Your task to perform on an android device: toggle javascript in the chrome app Image 0: 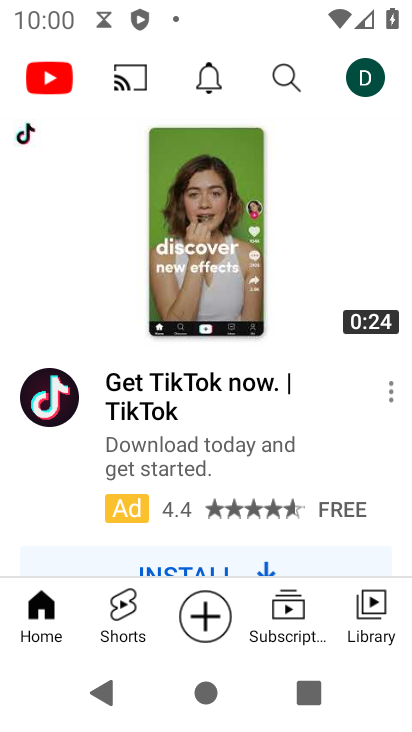
Step 0: press home button
Your task to perform on an android device: toggle javascript in the chrome app Image 1: 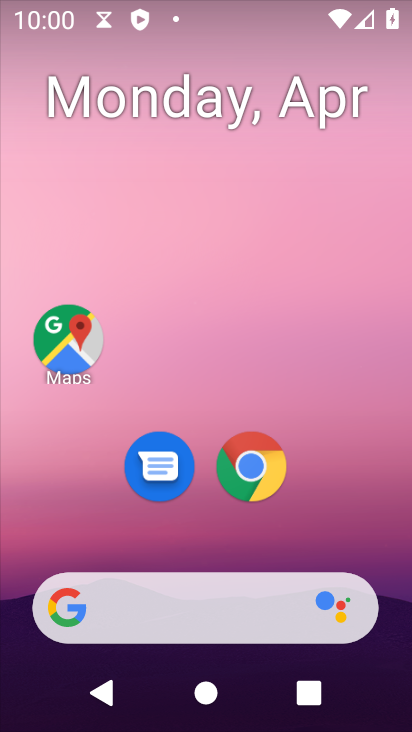
Step 1: click (255, 467)
Your task to perform on an android device: toggle javascript in the chrome app Image 2: 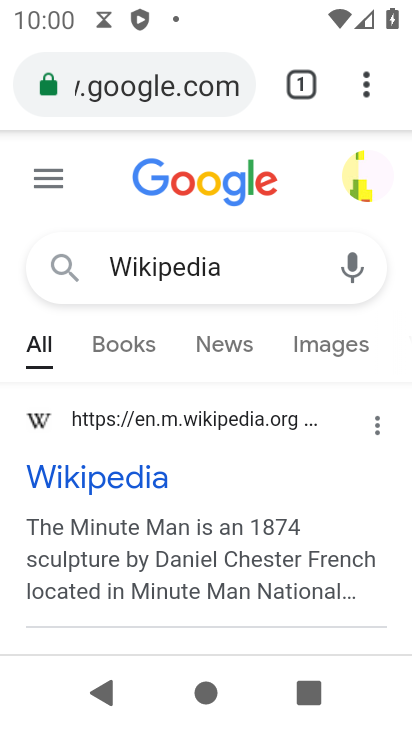
Step 2: click (371, 81)
Your task to perform on an android device: toggle javascript in the chrome app Image 3: 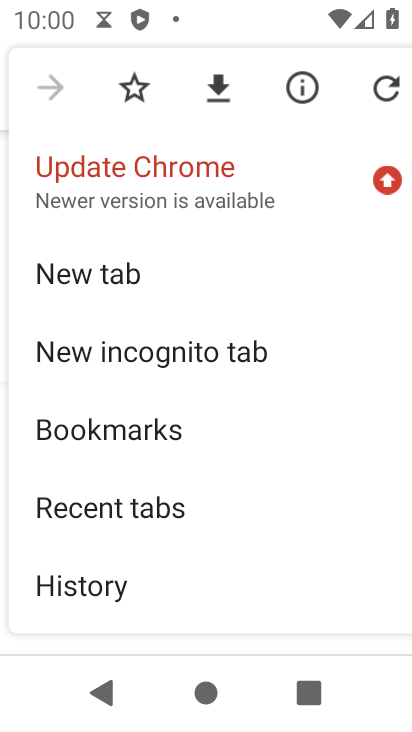
Step 3: drag from (166, 571) to (191, 418)
Your task to perform on an android device: toggle javascript in the chrome app Image 4: 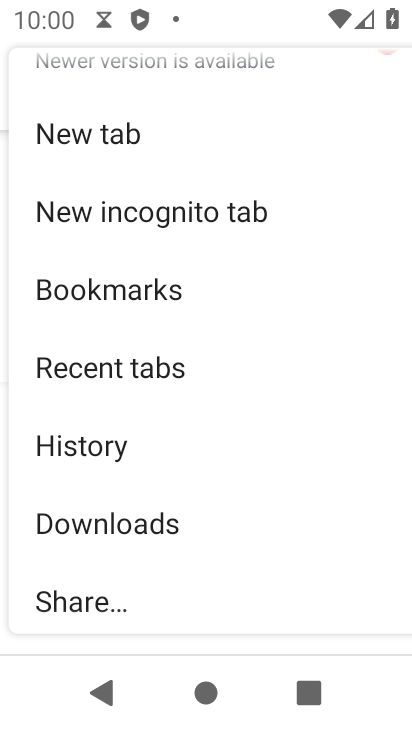
Step 4: drag from (204, 552) to (211, 420)
Your task to perform on an android device: toggle javascript in the chrome app Image 5: 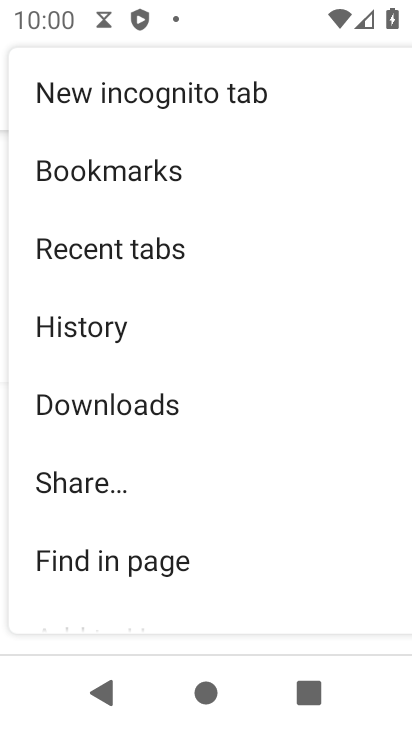
Step 5: drag from (200, 533) to (233, 421)
Your task to perform on an android device: toggle javascript in the chrome app Image 6: 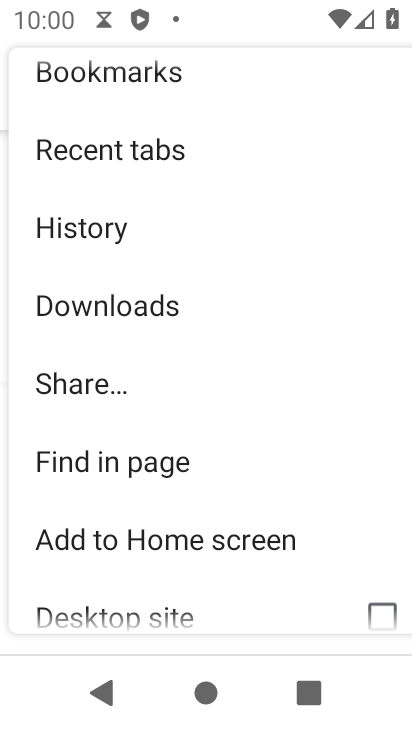
Step 6: drag from (207, 507) to (247, 408)
Your task to perform on an android device: toggle javascript in the chrome app Image 7: 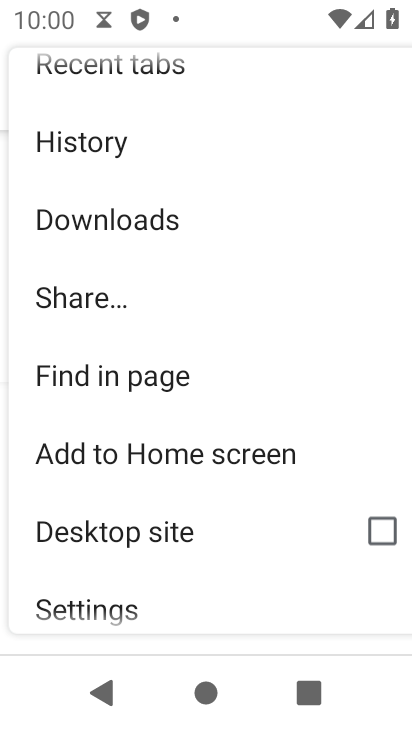
Step 7: drag from (169, 588) to (220, 429)
Your task to perform on an android device: toggle javascript in the chrome app Image 8: 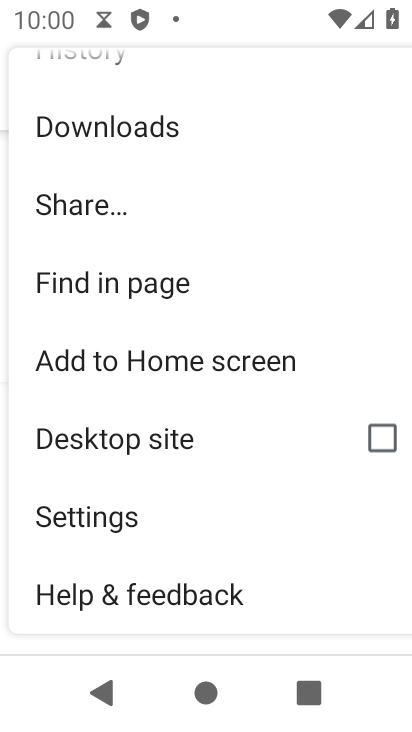
Step 8: click (77, 519)
Your task to perform on an android device: toggle javascript in the chrome app Image 9: 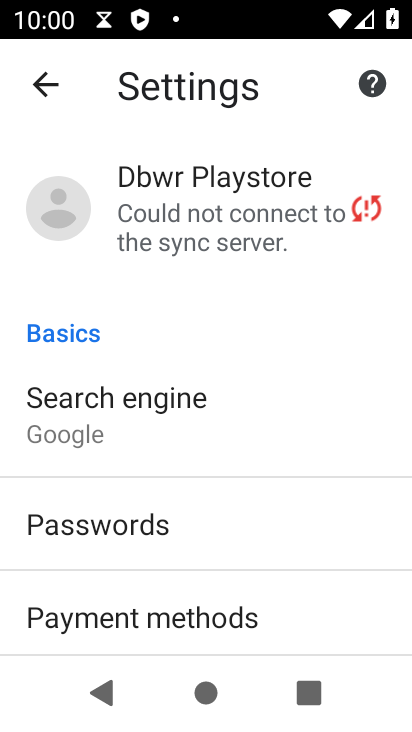
Step 9: drag from (200, 540) to (230, 390)
Your task to perform on an android device: toggle javascript in the chrome app Image 10: 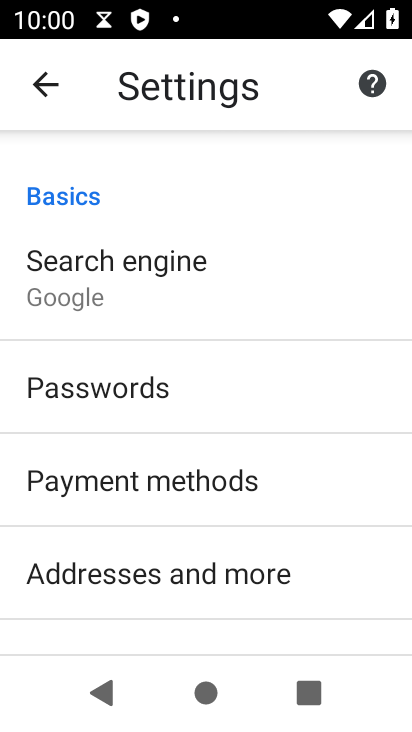
Step 10: drag from (191, 509) to (251, 383)
Your task to perform on an android device: toggle javascript in the chrome app Image 11: 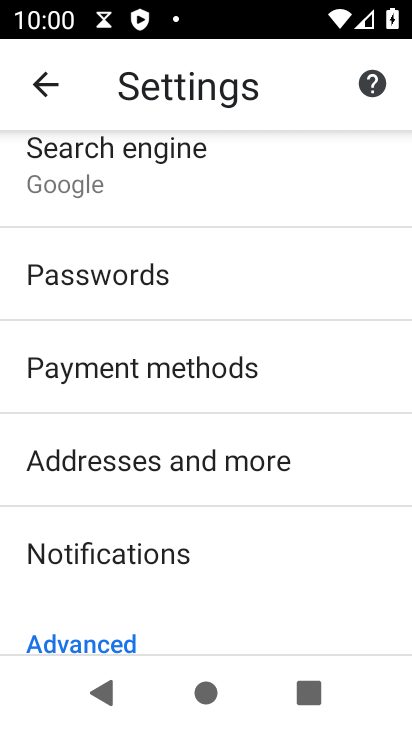
Step 11: drag from (168, 500) to (225, 362)
Your task to perform on an android device: toggle javascript in the chrome app Image 12: 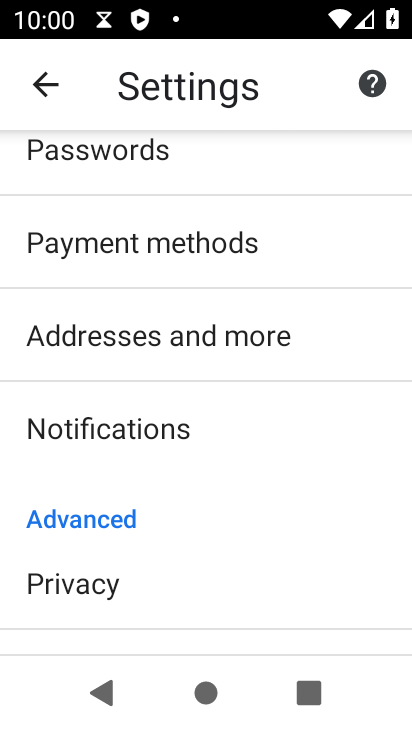
Step 12: drag from (196, 505) to (261, 377)
Your task to perform on an android device: toggle javascript in the chrome app Image 13: 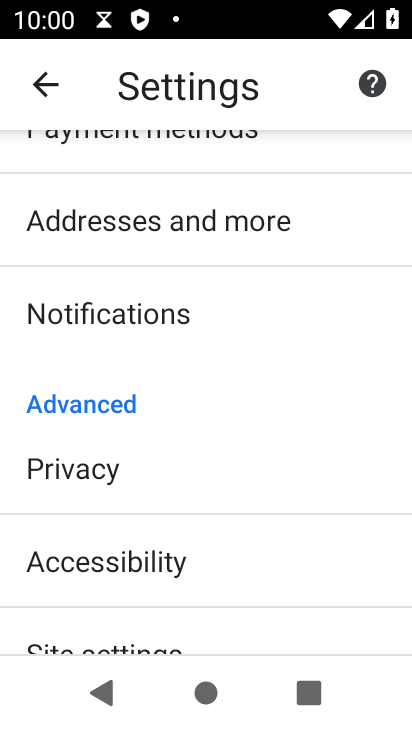
Step 13: drag from (189, 501) to (248, 418)
Your task to perform on an android device: toggle javascript in the chrome app Image 14: 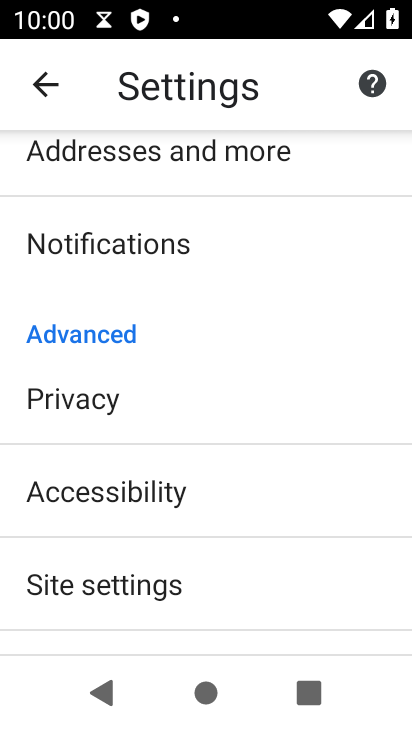
Step 14: drag from (197, 547) to (266, 412)
Your task to perform on an android device: toggle javascript in the chrome app Image 15: 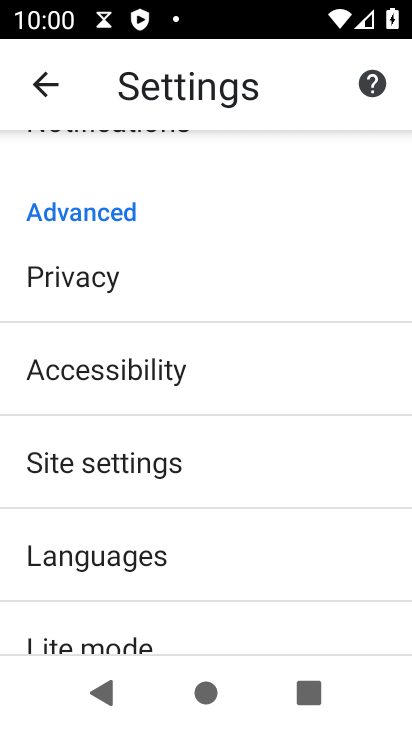
Step 15: click (131, 464)
Your task to perform on an android device: toggle javascript in the chrome app Image 16: 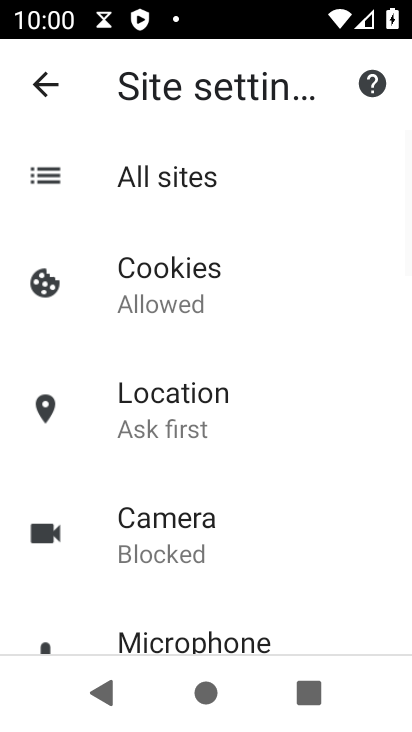
Step 16: drag from (258, 558) to (288, 451)
Your task to perform on an android device: toggle javascript in the chrome app Image 17: 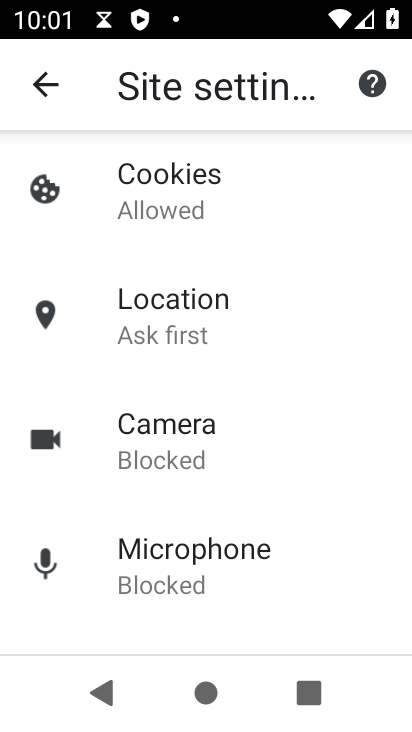
Step 17: drag from (233, 594) to (285, 487)
Your task to perform on an android device: toggle javascript in the chrome app Image 18: 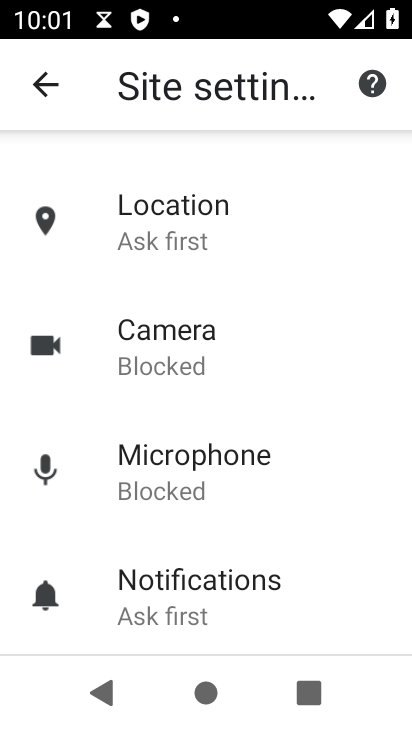
Step 18: drag from (254, 608) to (296, 460)
Your task to perform on an android device: toggle javascript in the chrome app Image 19: 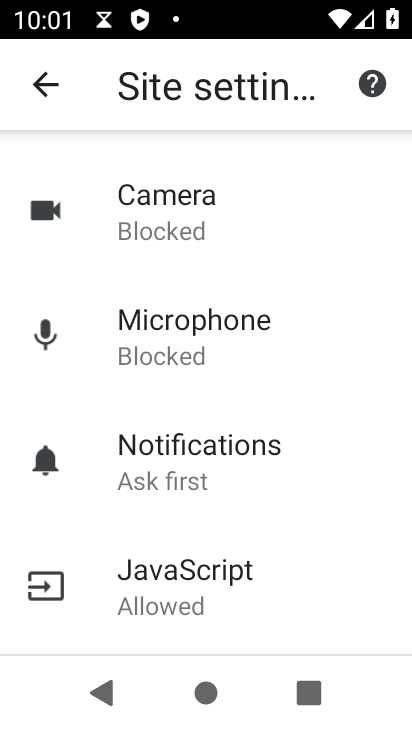
Step 19: click (220, 563)
Your task to perform on an android device: toggle javascript in the chrome app Image 20: 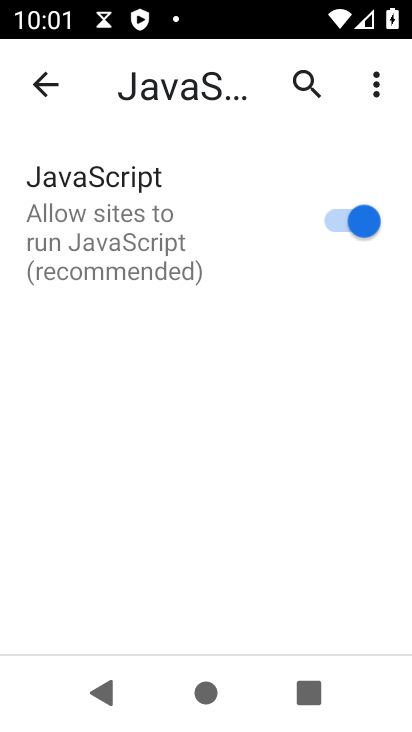
Step 20: click (367, 233)
Your task to perform on an android device: toggle javascript in the chrome app Image 21: 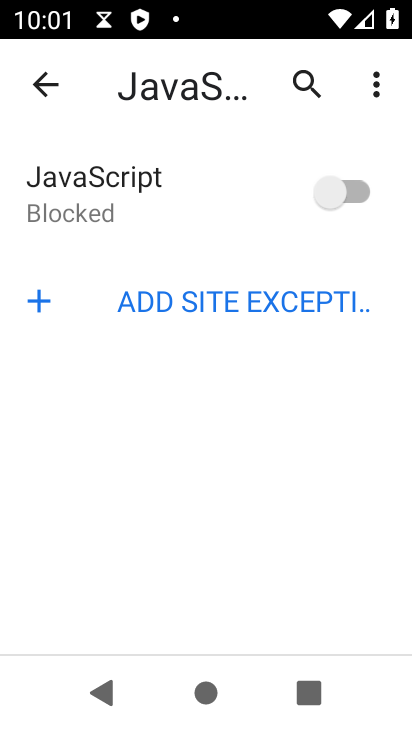
Step 21: task complete